Your task to perform on an android device: change timer sound Image 0: 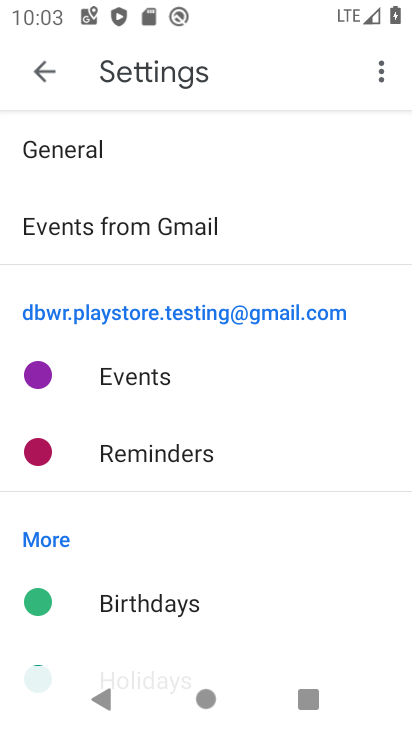
Step 0: press home button
Your task to perform on an android device: change timer sound Image 1: 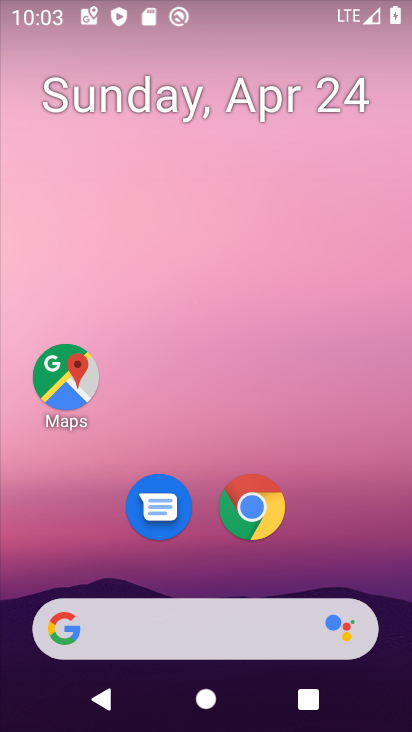
Step 1: drag from (184, 583) to (194, 140)
Your task to perform on an android device: change timer sound Image 2: 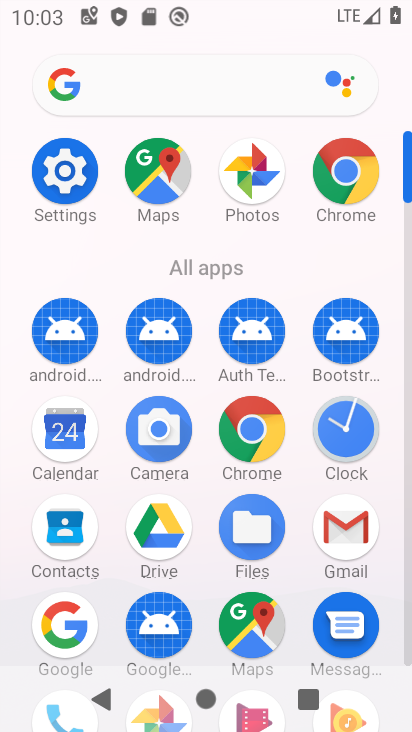
Step 2: click (354, 440)
Your task to perform on an android device: change timer sound Image 3: 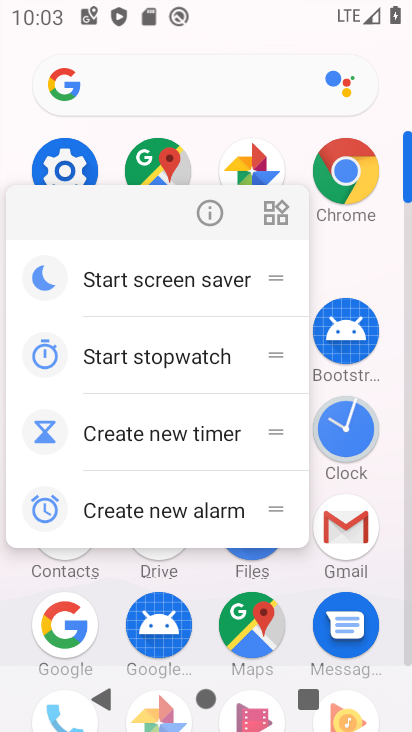
Step 3: click (212, 211)
Your task to perform on an android device: change timer sound Image 4: 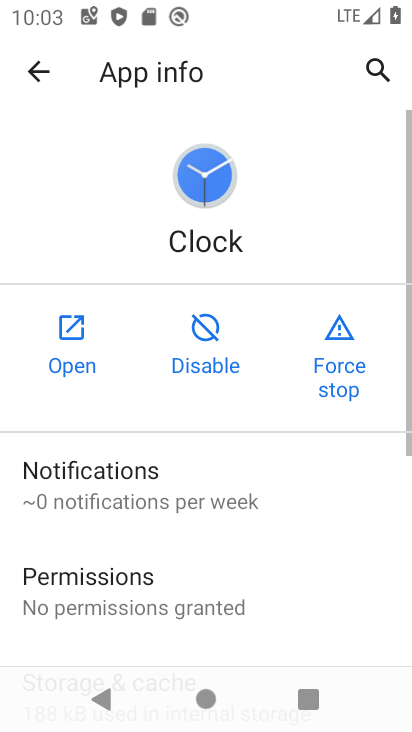
Step 4: click (65, 363)
Your task to perform on an android device: change timer sound Image 5: 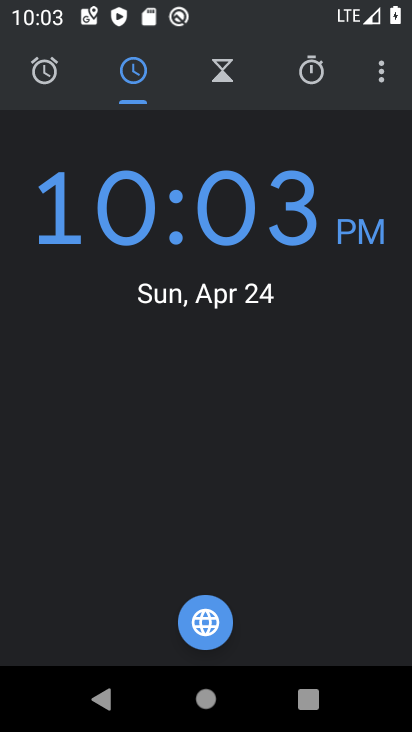
Step 5: click (381, 70)
Your task to perform on an android device: change timer sound Image 6: 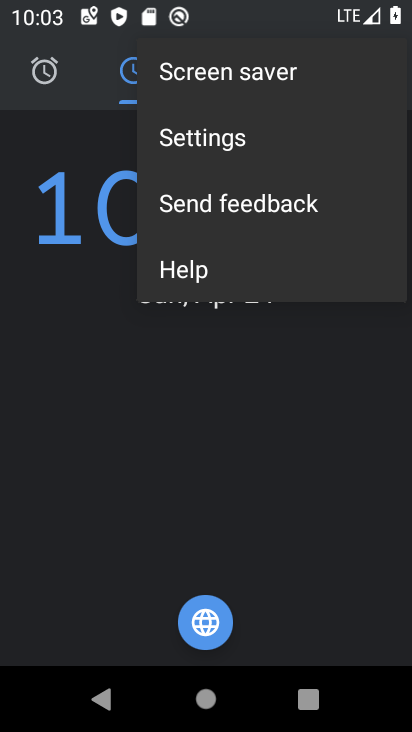
Step 6: click (222, 136)
Your task to perform on an android device: change timer sound Image 7: 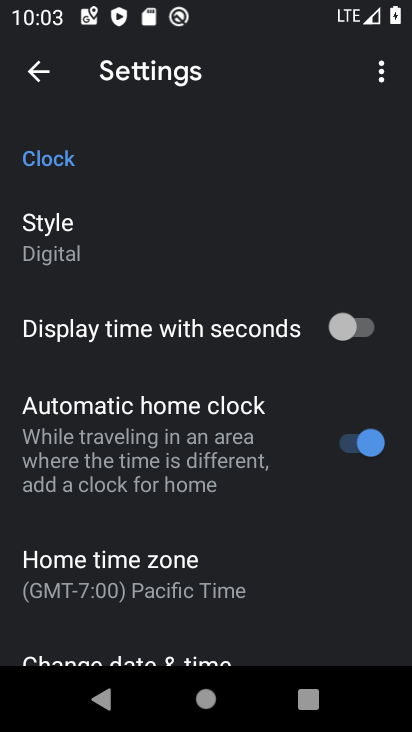
Step 7: drag from (267, 476) to (297, 155)
Your task to perform on an android device: change timer sound Image 8: 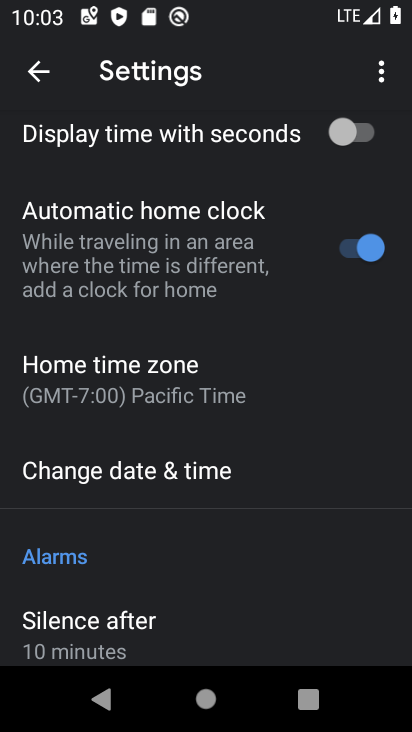
Step 8: drag from (216, 492) to (293, 161)
Your task to perform on an android device: change timer sound Image 9: 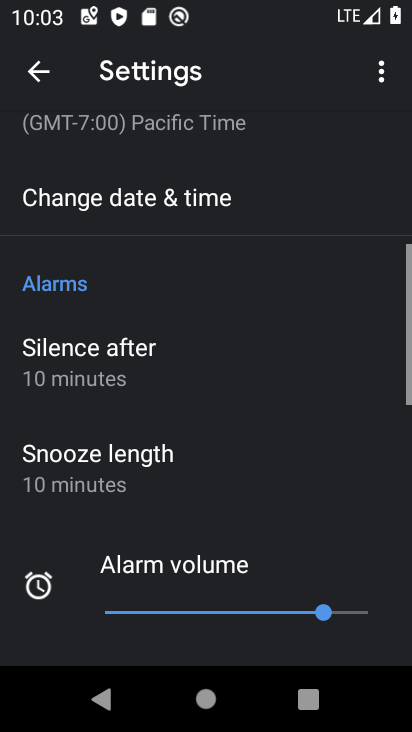
Step 9: drag from (257, 488) to (295, 160)
Your task to perform on an android device: change timer sound Image 10: 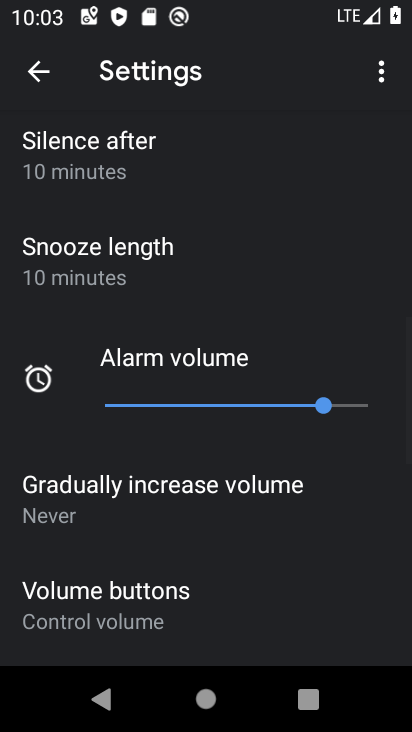
Step 10: drag from (240, 494) to (276, 170)
Your task to perform on an android device: change timer sound Image 11: 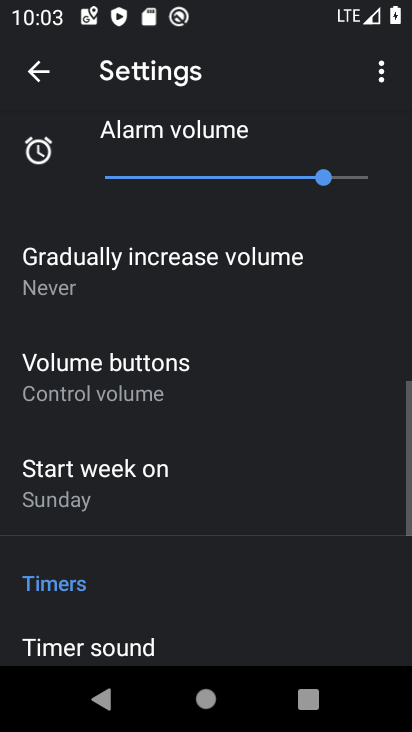
Step 11: drag from (179, 537) to (226, 213)
Your task to perform on an android device: change timer sound Image 12: 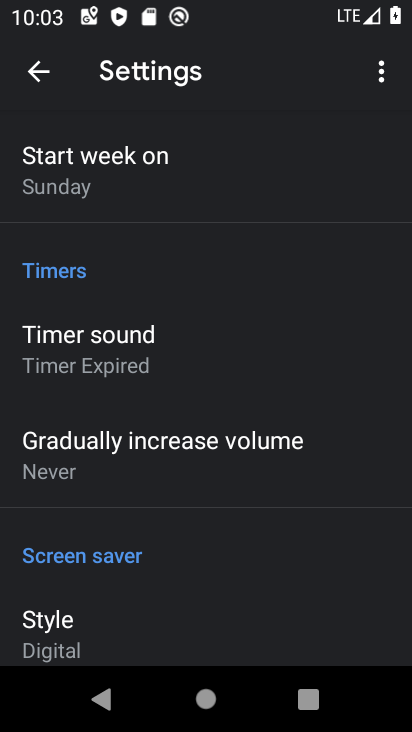
Step 12: click (129, 353)
Your task to perform on an android device: change timer sound Image 13: 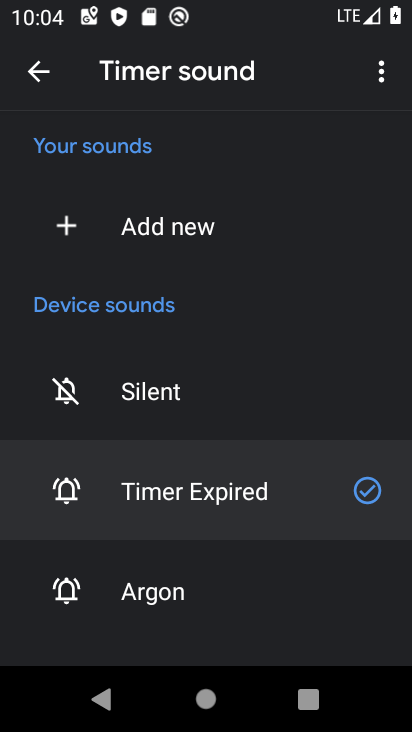
Step 13: click (201, 406)
Your task to perform on an android device: change timer sound Image 14: 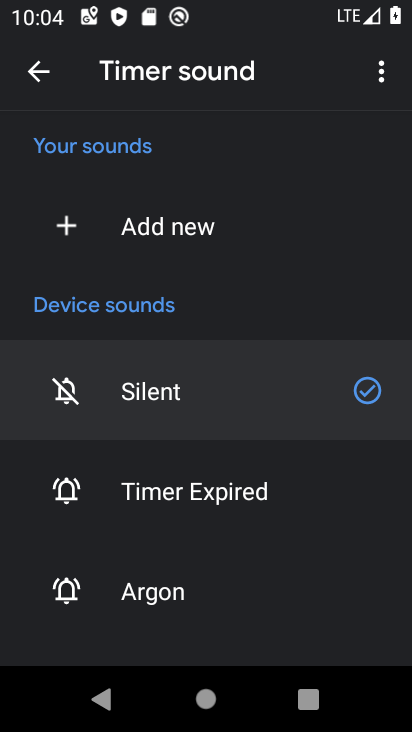
Step 14: task complete